Your task to perform on an android device: all mails in gmail Image 0: 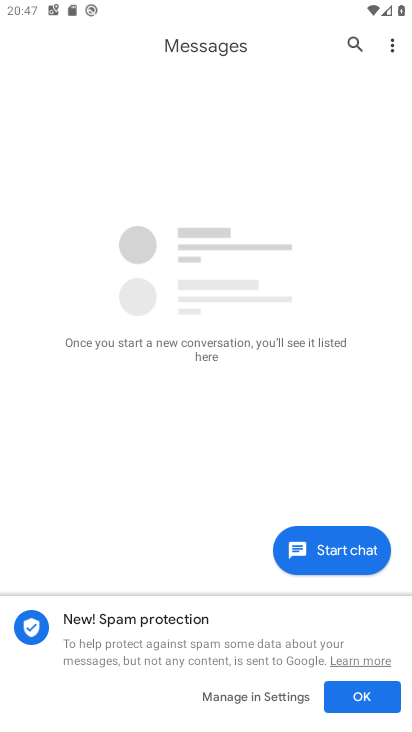
Step 0: press home button
Your task to perform on an android device: all mails in gmail Image 1: 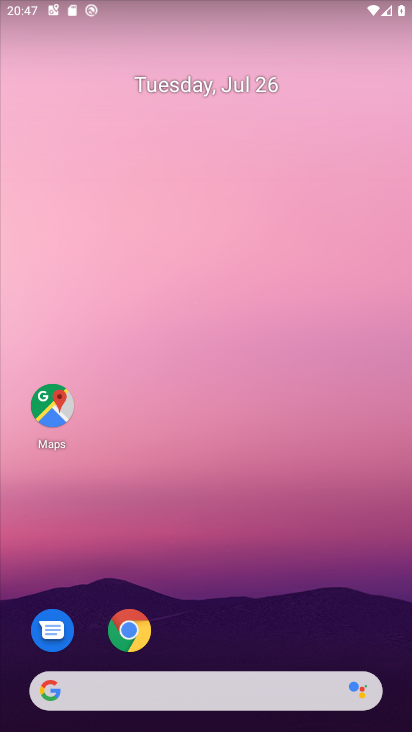
Step 1: drag from (401, 703) to (313, 5)
Your task to perform on an android device: all mails in gmail Image 2: 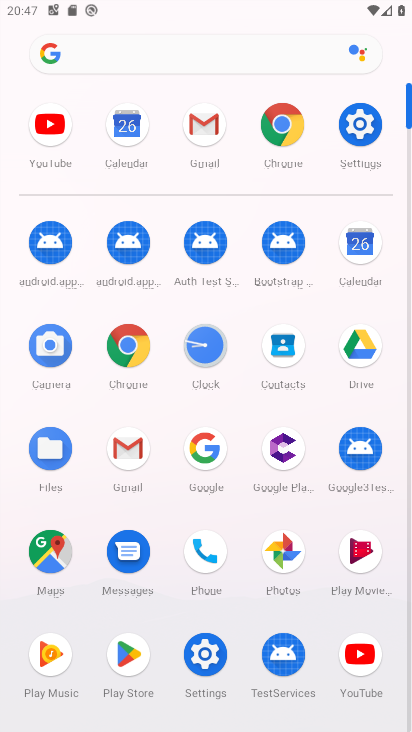
Step 2: click (121, 441)
Your task to perform on an android device: all mails in gmail Image 3: 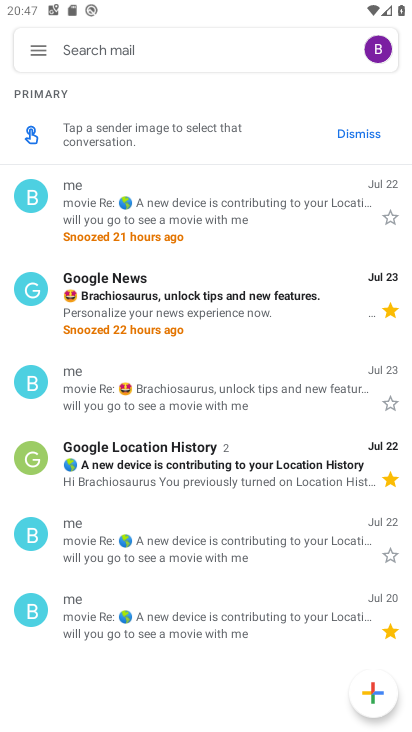
Step 3: click (26, 52)
Your task to perform on an android device: all mails in gmail Image 4: 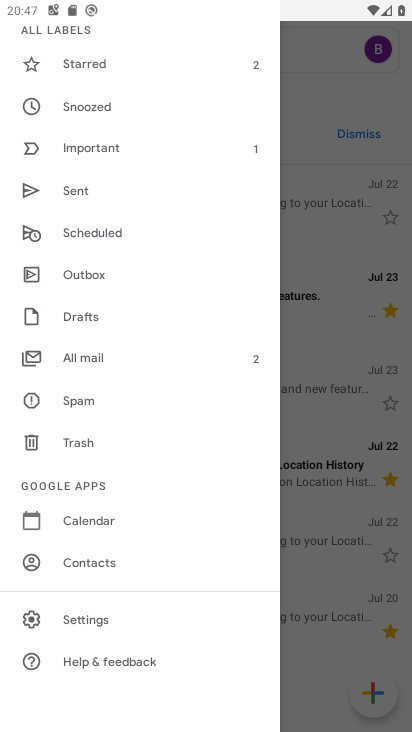
Step 4: click (74, 356)
Your task to perform on an android device: all mails in gmail Image 5: 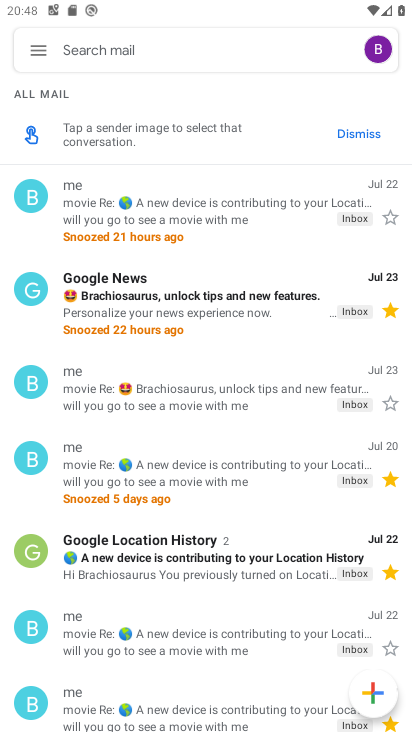
Step 5: task complete